Your task to perform on an android device: change the clock style Image 0: 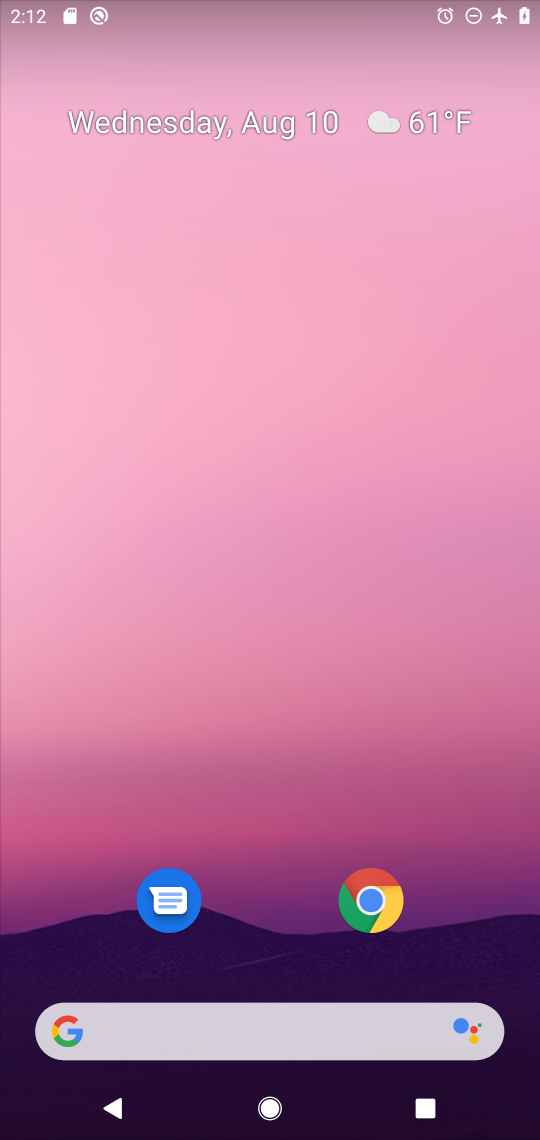
Step 0: drag from (266, 862) to (318, 0)
Your task to perform on an android device: change the clock style Image 1: 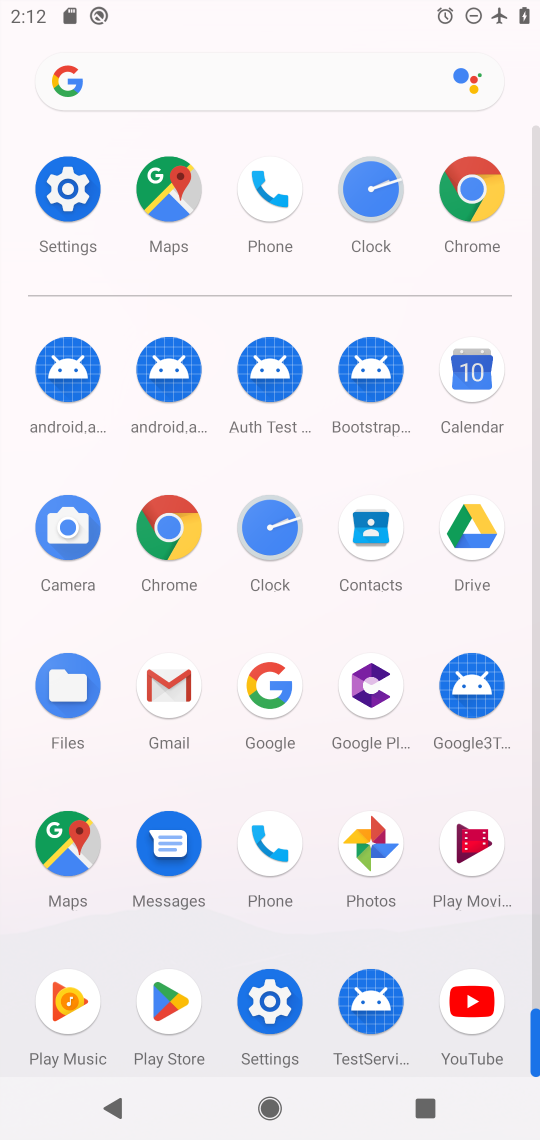
Step 1: click (372, 187)
Your task to perform on an android device: change the clock style Image 2: 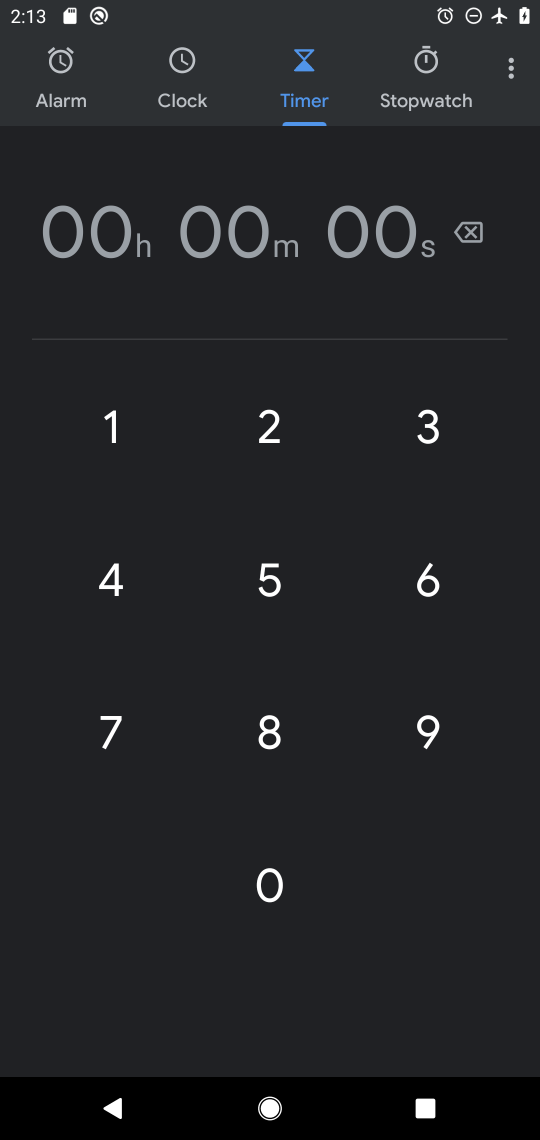
Step 2: click (177, 61)
Your task to perform on an android device: change the clock style Image 3: 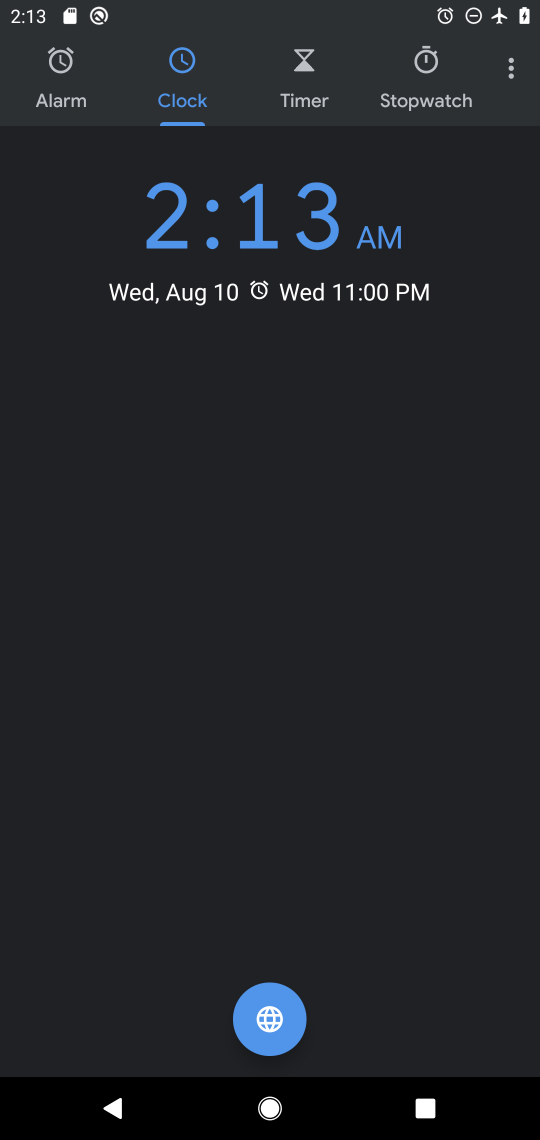
Step 3: click (515, 82)
Your task to perform on an android device: change the clock style Image 4: 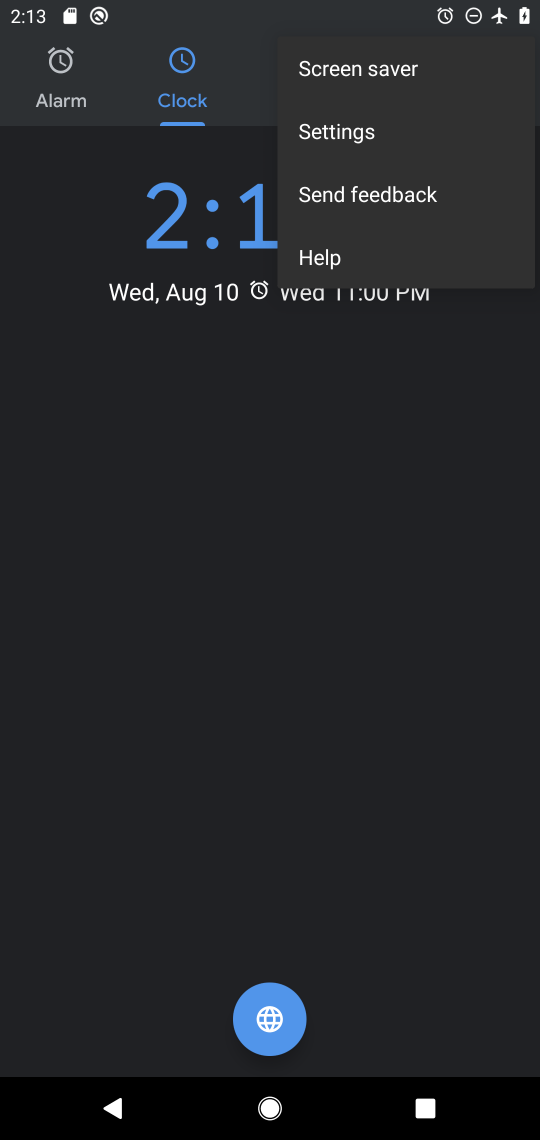
Step 4: click (395, 129)
Your task to perform on an android device: change the clock style Image 5: 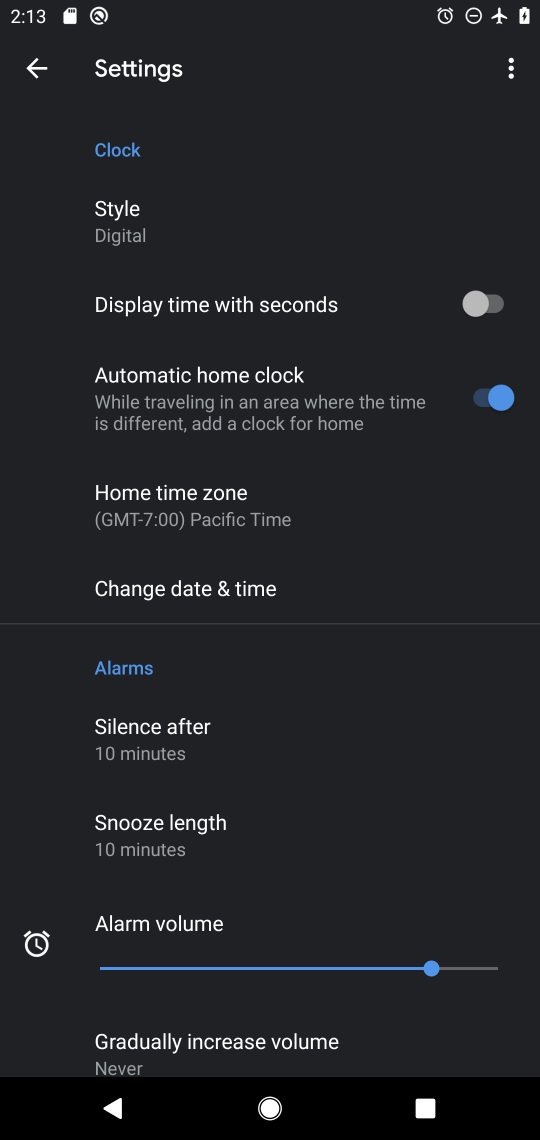
Step 5: click (141, 213)
Your task to perform on an android device: change the clock style Image 6: 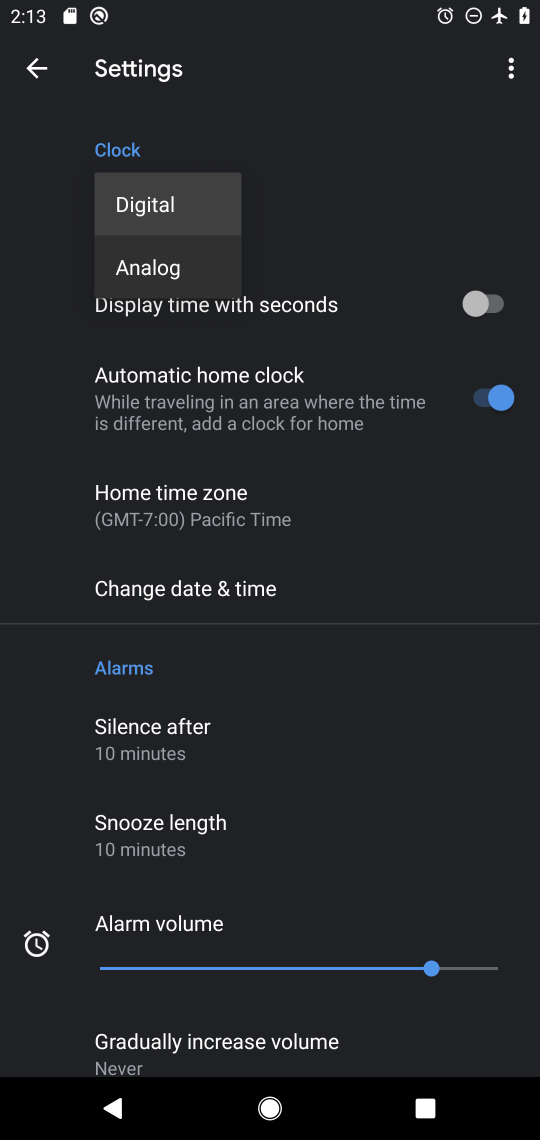
Step 6: click (164, 263)
Your task to perform on an android device: change the clock style Image 7: 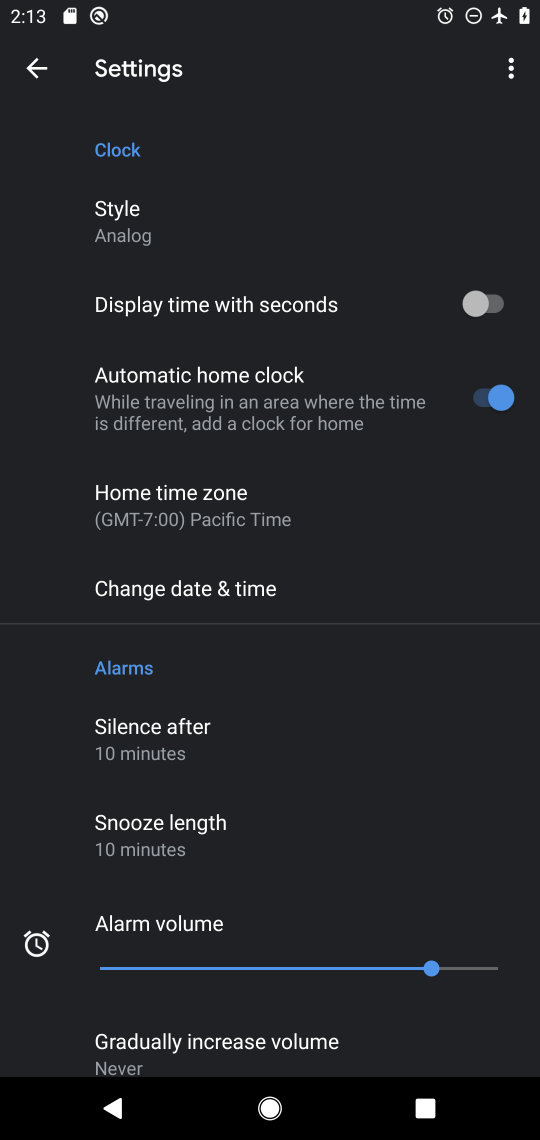
Step 7: click (41, 71)
Your task to perform on an android device: change the clock style Image 8: 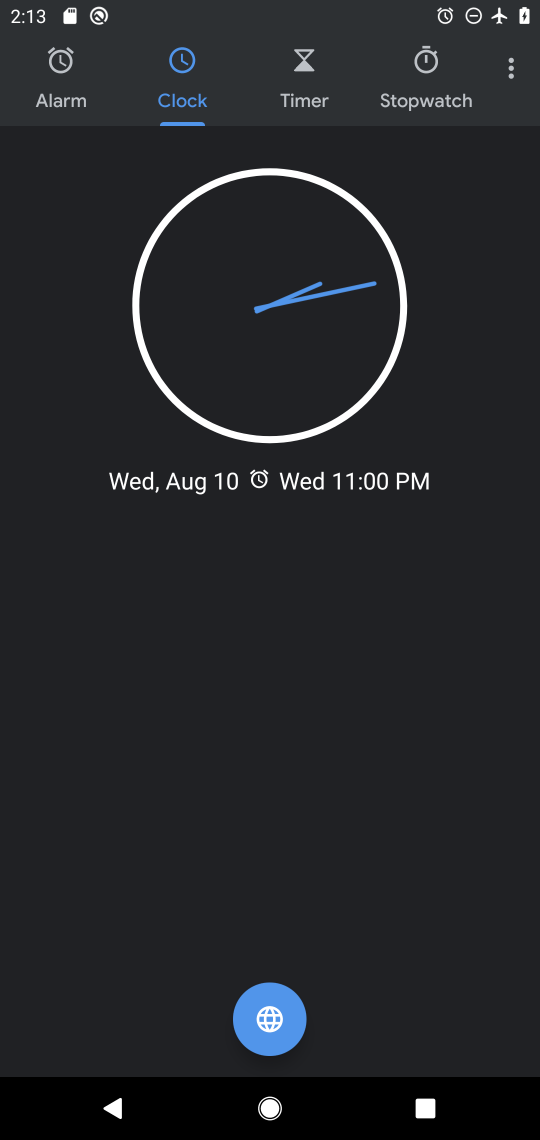
Step 8: task complete